Your task to perform on an android device: Open privacy settings Image 0: 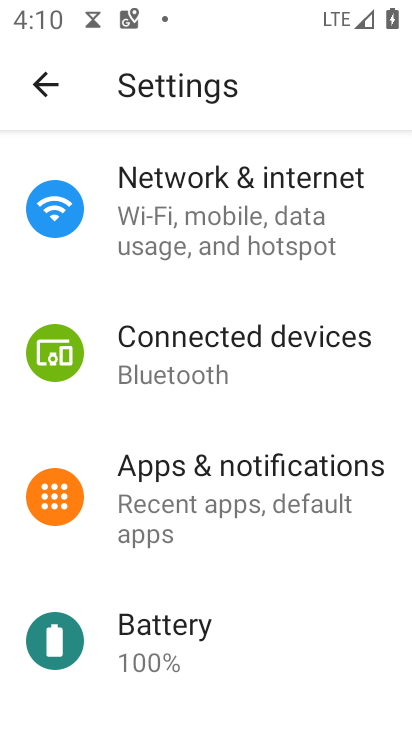
Step 0: drag from (194, 625) to (267, 222)
Your task to perform on an android device: Open privacy settings Image 1: 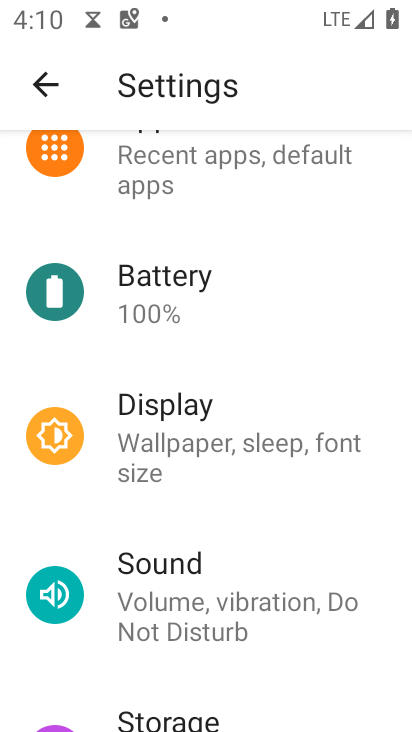
Step 1: drag from (160, 614) to (186, 321)
Your task to perform on an android device: Open privacy settings Image 2: 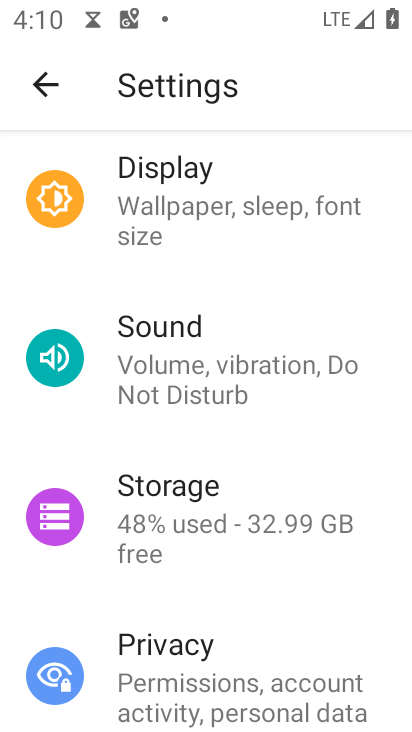
Step 2: drag from (205, 649) to (245, 403)
Your task to perform on an android device: Open privacy settings Image 3: 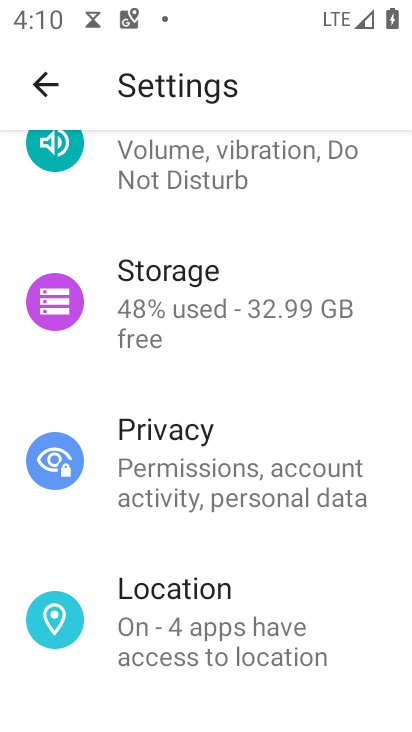
Step 3: click (213, 502)
Your task to perform on an android device: Open privacy settings Image 4: 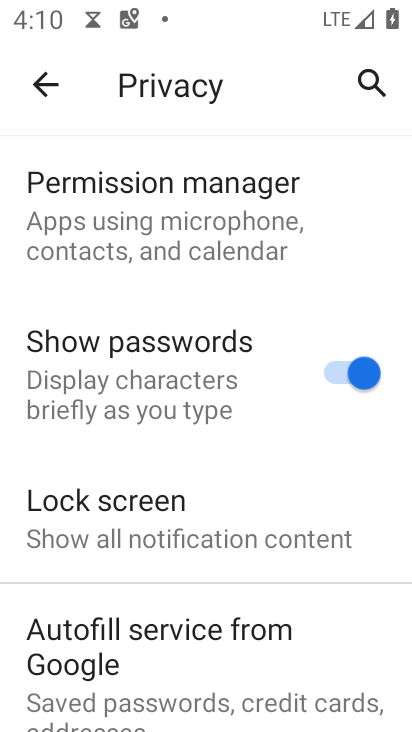
Step 4: task complete